Your task to perform on an android device: turn off translation in the chrome app Image 0: 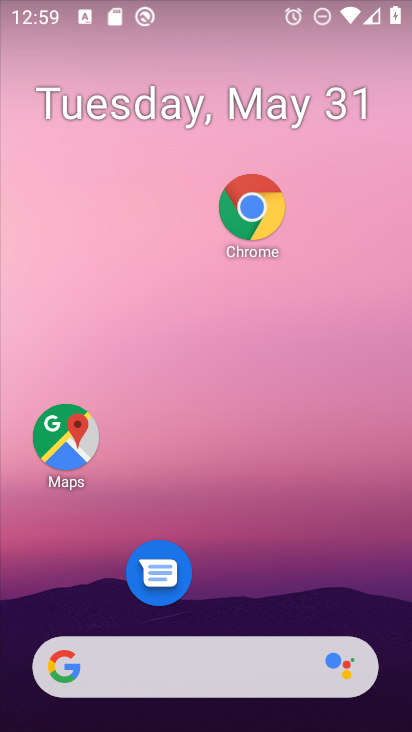
Step 0: drag from (261, 619) to (240, 129)
Your task to perform on an android device: turn off translation in the chrome app Image 1: 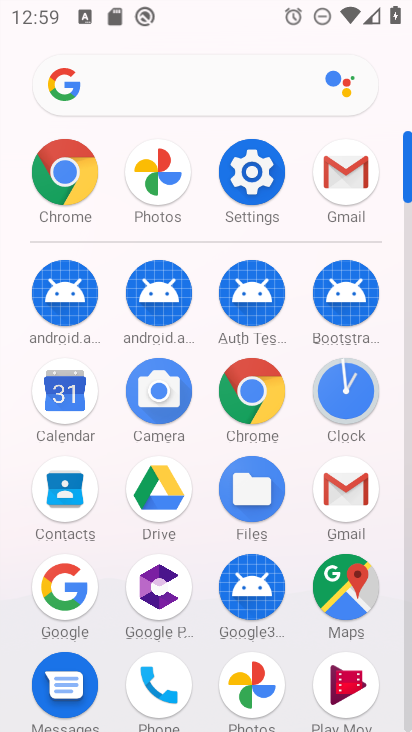
Step 1: click (244, 405)
Your task to perform on an android device: turn off translation in the chrome app Image 2: 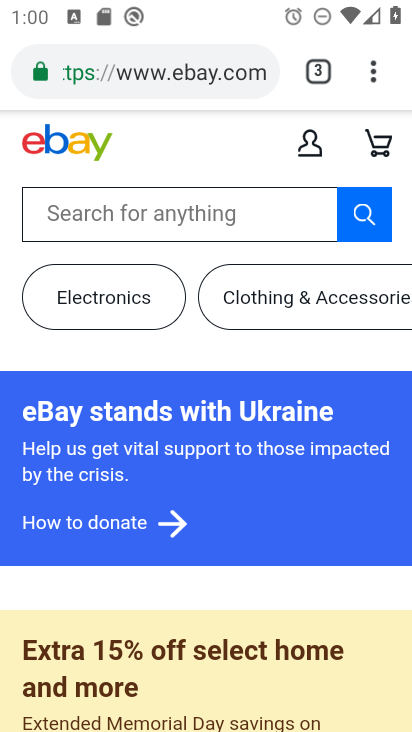
Step 2: click (380, 81)
Your task to perform on an android device: turn off translation in the chrome app Image 3: 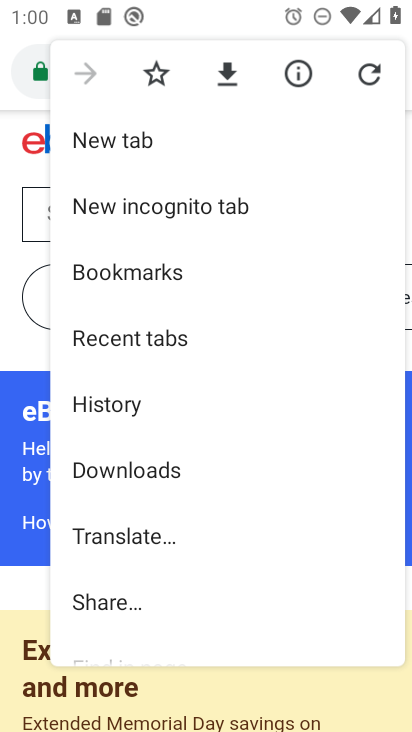
Step 3: drag from (190, 518) to (194, 282)
Your task to perform on an android device: turn off translation in the chrome app Image 4: 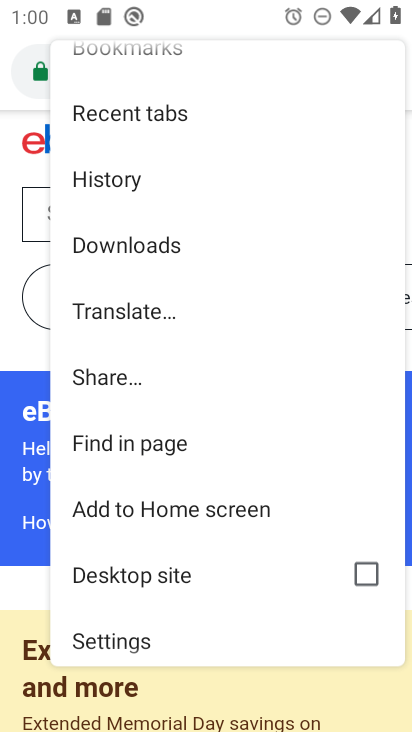
Step 4: click (143, 313)
Your task to perform on an android device: turn off translation in the chrome app Image 5: 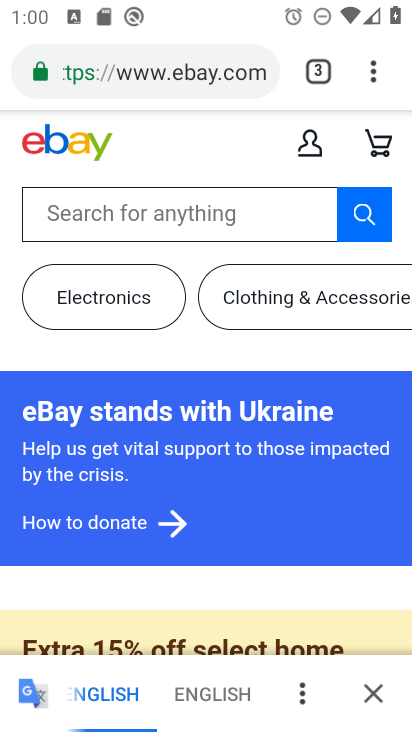
Step 5: click (292, 697)
Your task to perform on an android device: turn off translation in the chrome app Image 6: 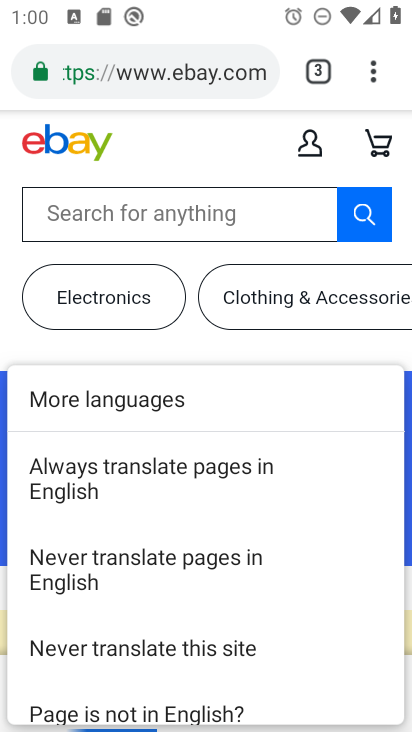
Step 6: click (205, 652)
Your task to perform on an android device: turn off translation in the chrome app Image 7: 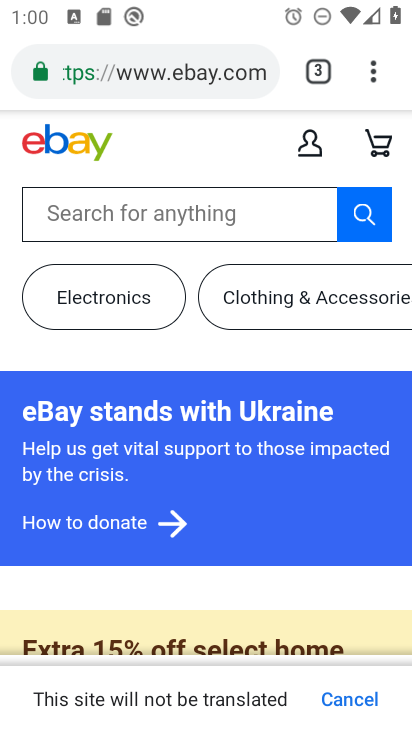
Step 7: task complete